Your task to perform on an android device: visit the assistant section in the google photos Image 0: 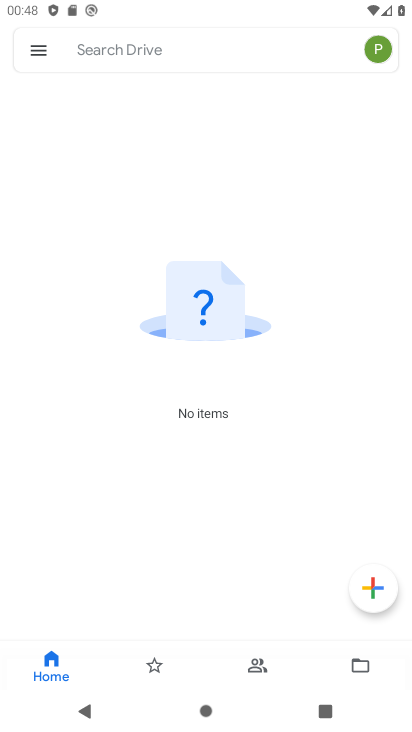
Step 0: press home button
Your task to perform on an android device: visit the assistant section in the google photos Image 1: 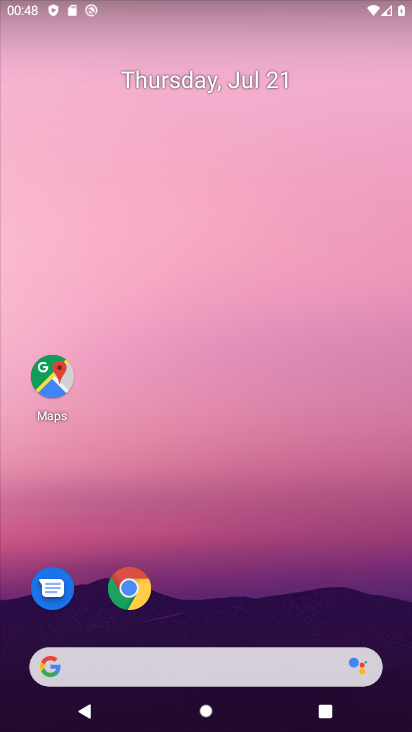
Step 1: drag from (286, 560) to (290, 133)
Your task to perform on an android device: visit the assistant section in the google photos Image 2: 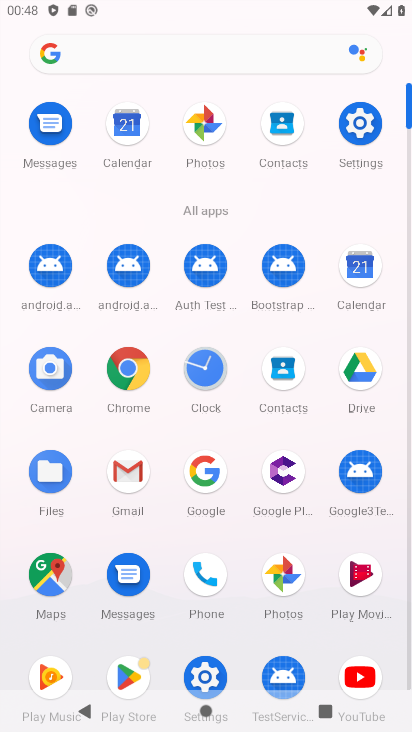
Step 2: click (281, 577)
Your task to perform on an android device: visit the assistant section in the google photos Image 3: 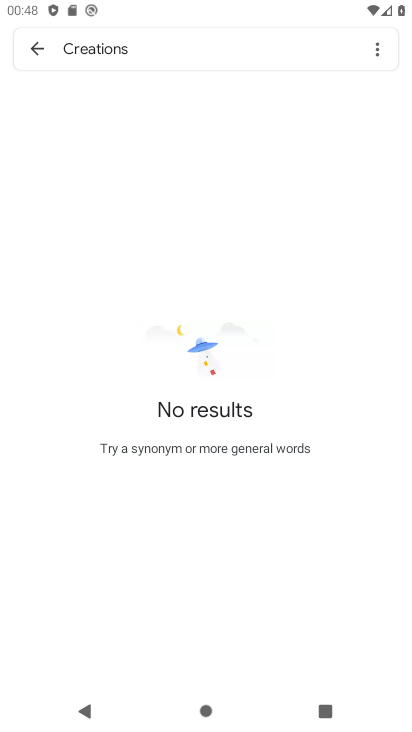
Step 3: click (46, 47)
Your task to perform on an android device: visit the assistant section in the google photos Image 4: 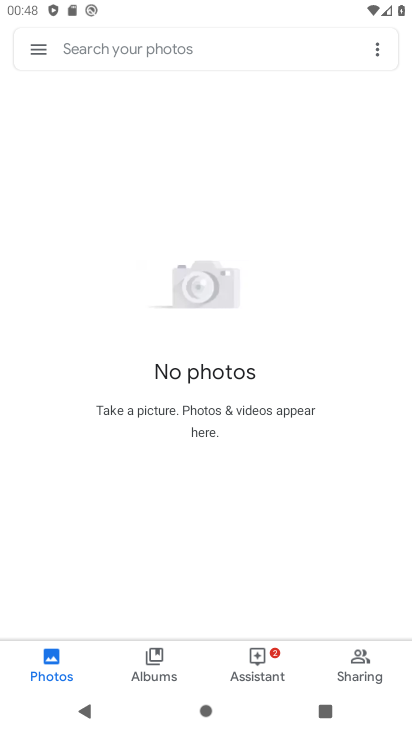
Step 4: click (268, 668)
Your task to perform on an android device: visit the assistant section in the google photos Image 5: 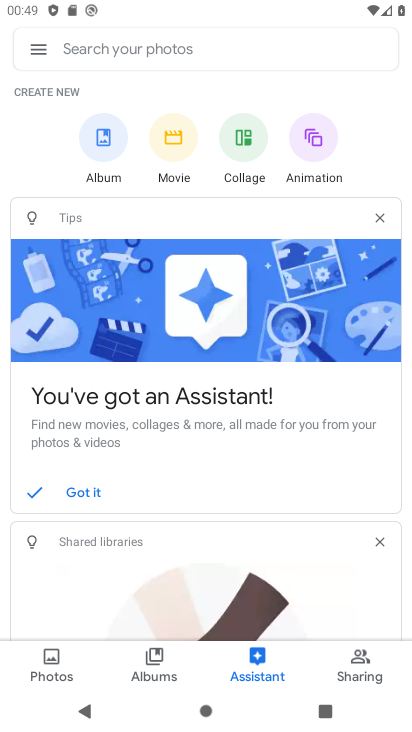
Step 5: task complete